Your task to perform on an android device: Open Google Chrome Image 0: 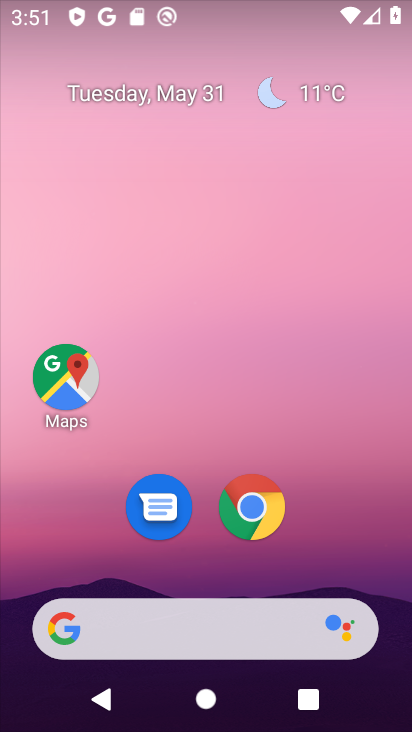
Step 0: click (259, 501)
Your task to perform on an android device: Open Google Chrome Image 1: 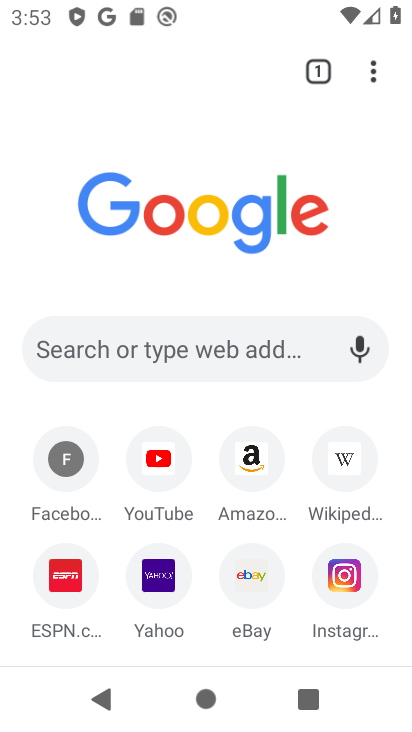
Step 1: task complete